Your task to perform on an android device: Open display settings Image 0: 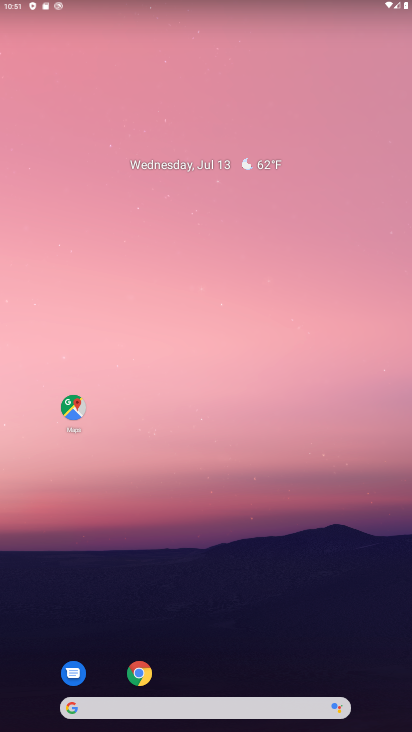
Step 0: drag from (236, 647) to (228, 132)
Your task to perform on an android device: Open display settings Image 1: 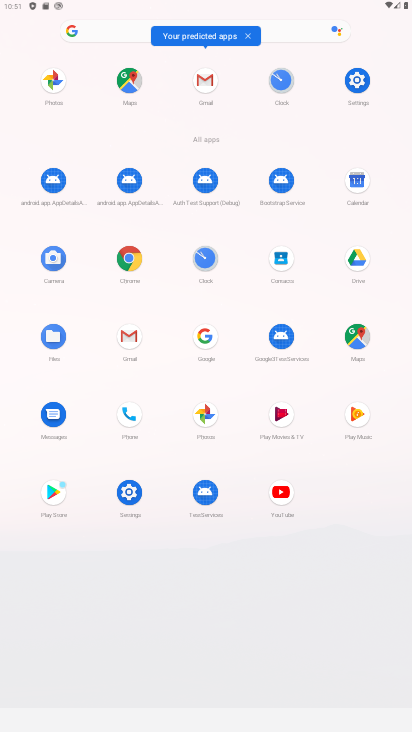
Step 1: click (130, 494)
Your task to perform on an android device: Open display settings Image 2: 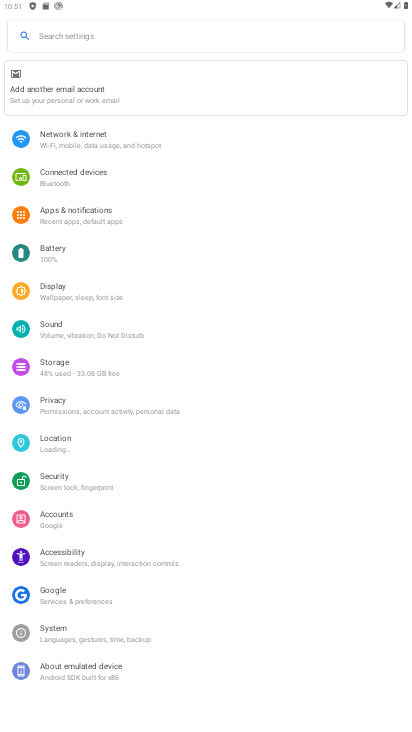
Step 2: click (52, 287)
Your task to perform on an android device: Open display settings Image 3: 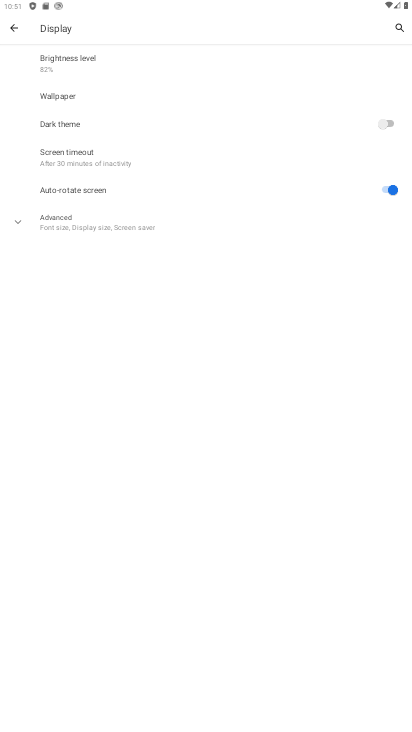
Step 3: task complete